Your task to perform on an android device: empty trash in google photos Image 0: 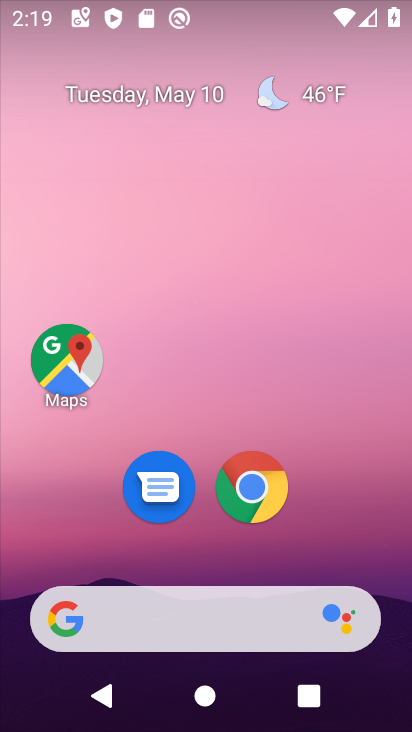
Step 0: drag from (367, 563) to (295, 117)
Your task to perform on an android device: empty trash in google photos Image 1: 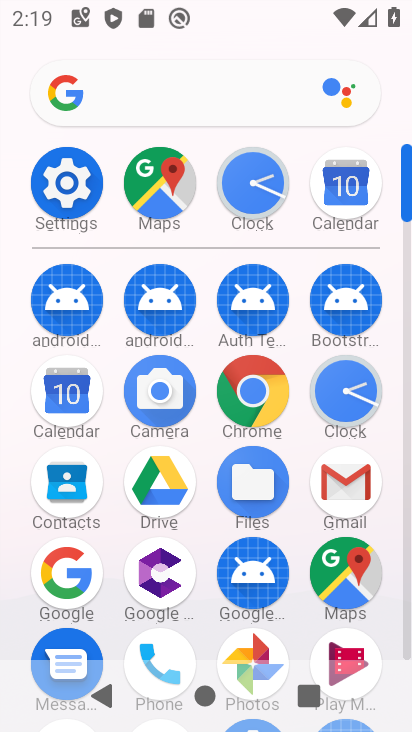
Step 1: drag from (204, 452) to (236, 178)
Your task to perform on an android device: empty trash in google photos Image 2: 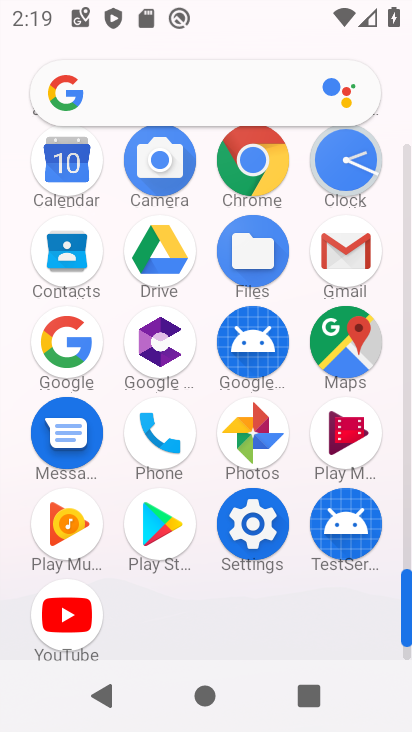
Step 2: click (265, 439)
Your task to perform on an android device: empty trash in google photos Image 3: 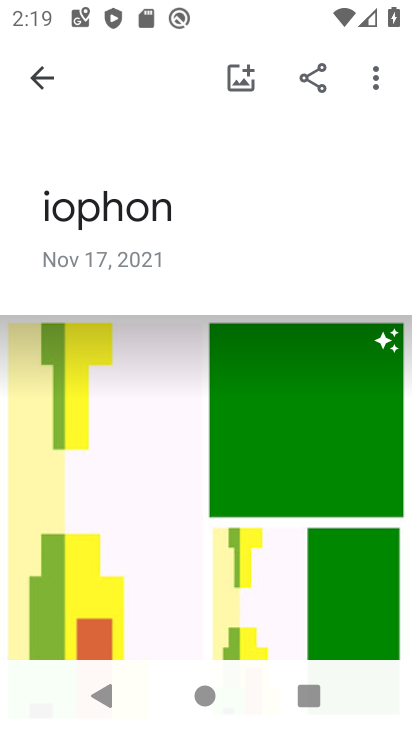
Step 3: click (40, 73)
Your task to perform on an android device: empty trash in google photos Image 4: 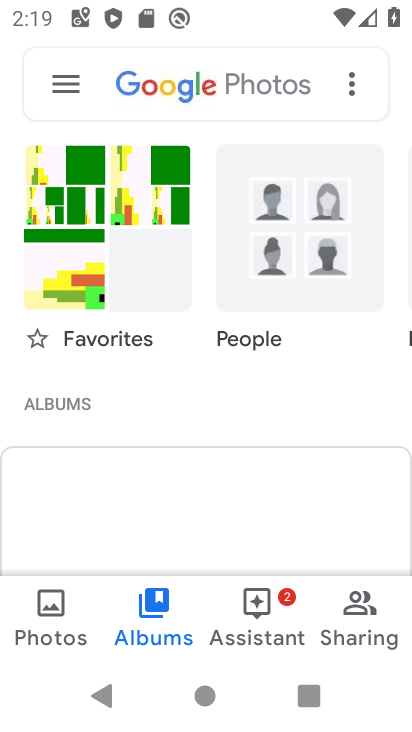
Step 4: click (358, 81)
Your task to perform on an android device: empty trash in google photos Image 5: 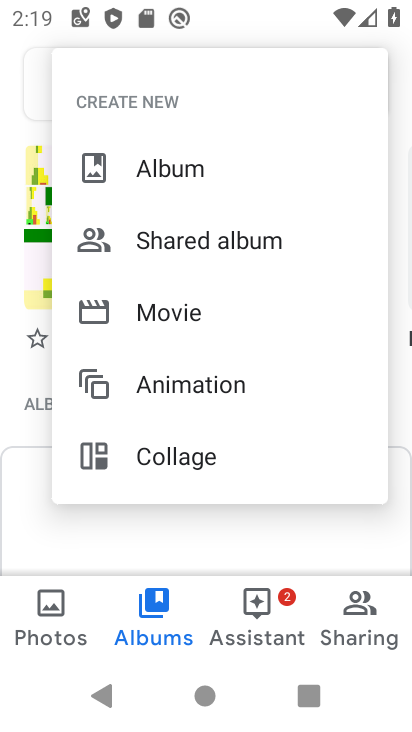
Step 5: click (341, 521)
Your task to perform on an android device: empty trash in google photos Image 6: 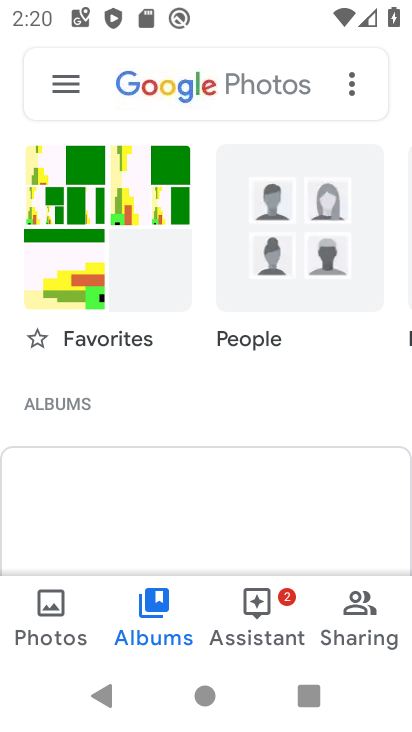
Step 6: click (64, 84)
Your task to perform on an android device: empty trash in google photos Image 7: 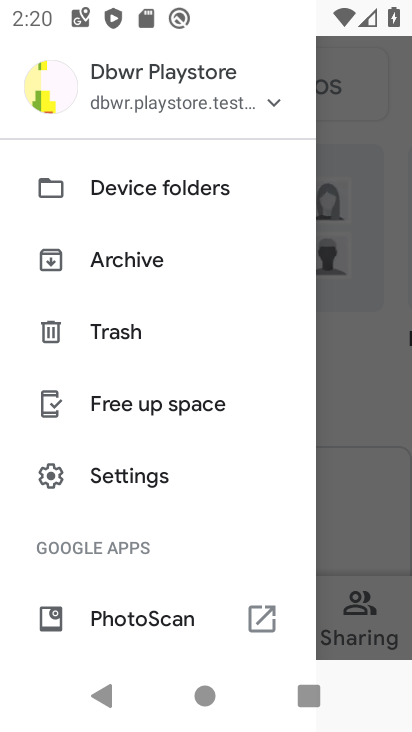
Step 7: click (111, 339)
Your task to perform on an android device: empty trash in google photos Image 8: 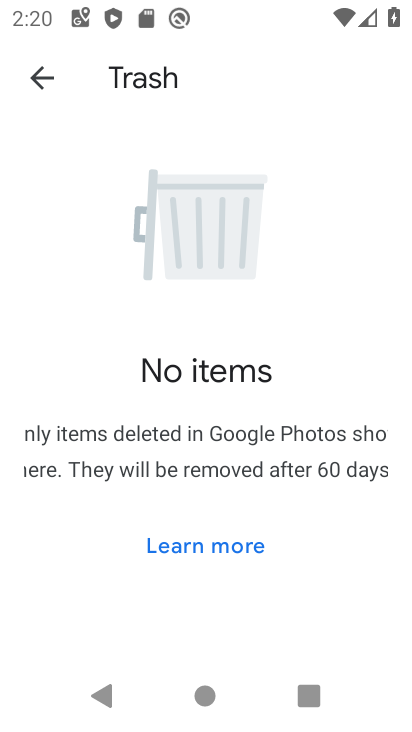
Step 8: task complete